Your task to perform on an android device: Turn on the flashlight Image 0: 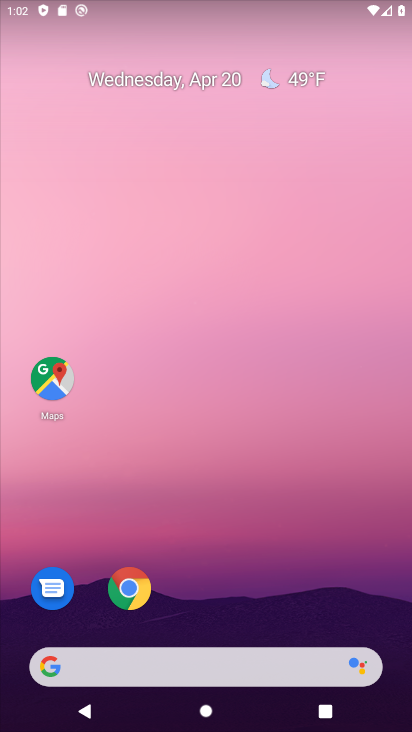
Step 0: drag from (265, 4) to (214, 408)
Your task to perform on an android device: Turn on the flashlight Image 1: 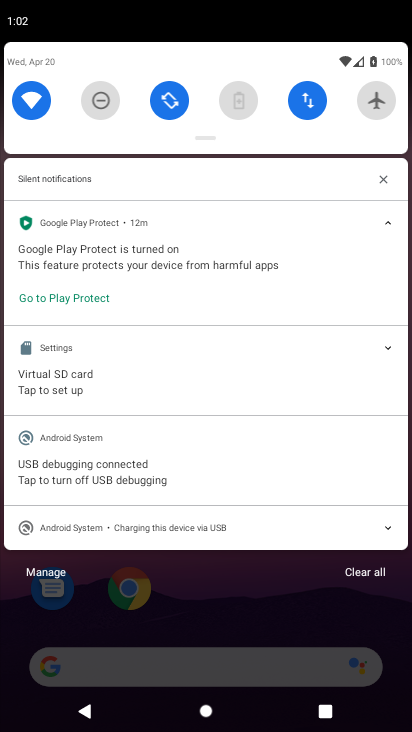
Step 1: task complete